Your task to perform on an android device: Open calendar and show me the third week of next month Image 0: 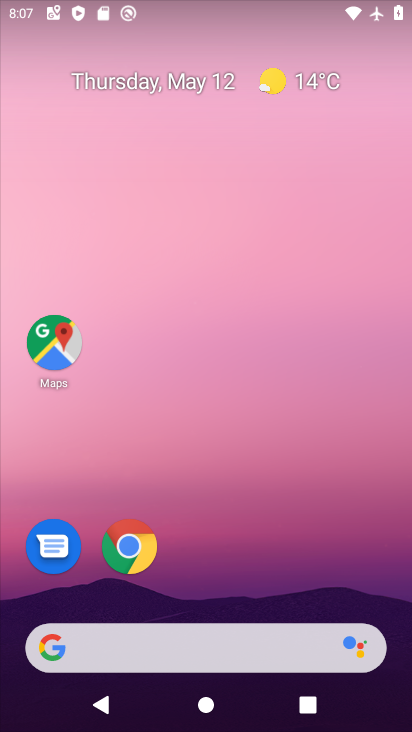
Step 0: drag from (172, 655) to (355, 163)
Your task to perform on an android device: Open calendar and show me the third week of next month Image 1: 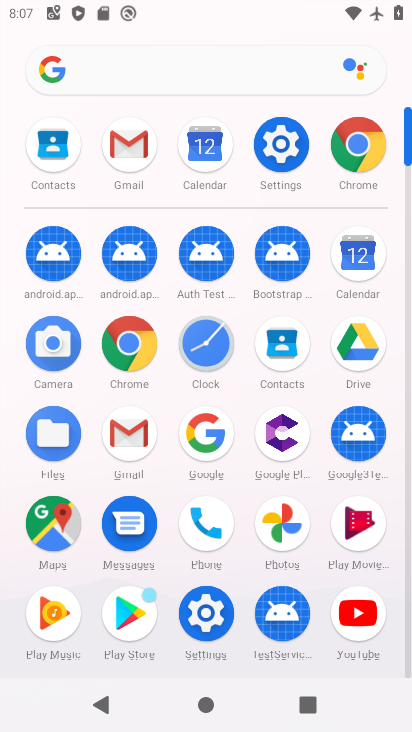
Step 1: click (364, 262)
Your task to perform on an android device: Open calendar and show me the third week of next month Image 2: 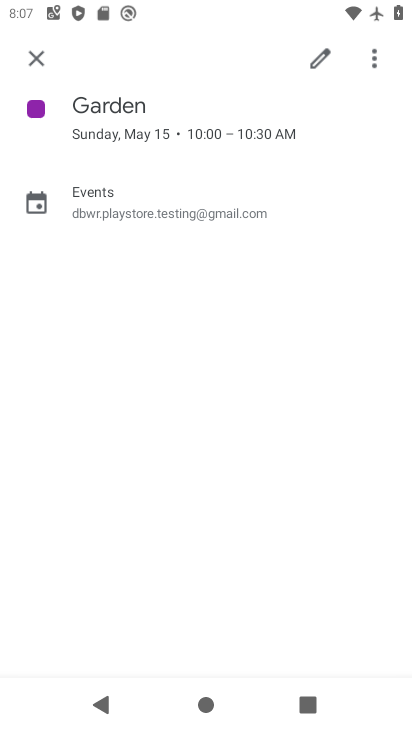
Step 2: click (39, 56)
Your task to perform on an android device: Open calendar and show me the third week of next month Image 3: 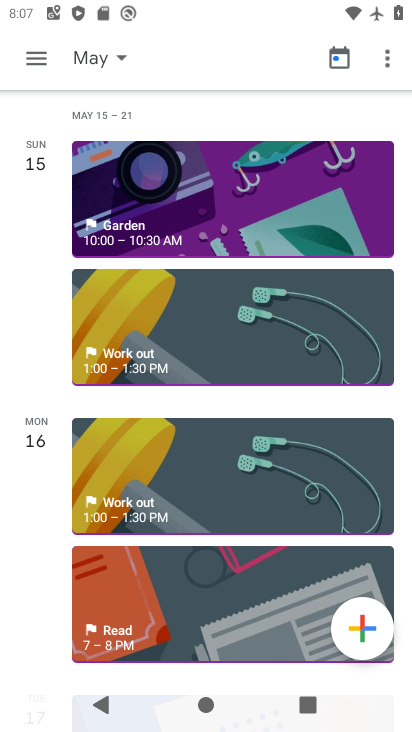
Step 3: click (107, 54)
Your task to perform on an android device: Open calendar and show me the third week of next month Image 4: 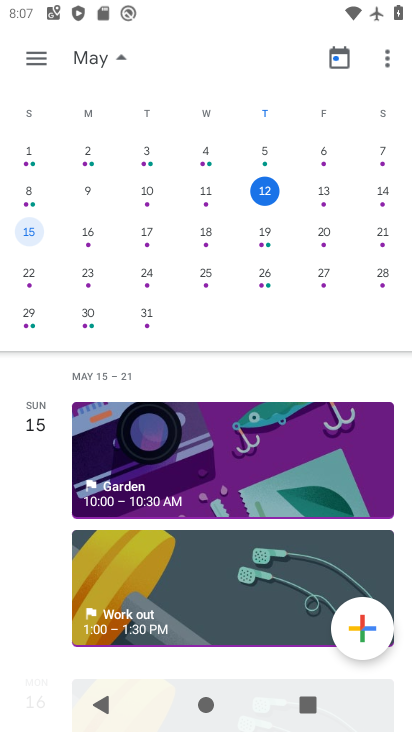
Step 4: drag from (350, 270) to (153, 154)
Your task to perform on an android device: Open calendar and show me the third week of next month Image 5: 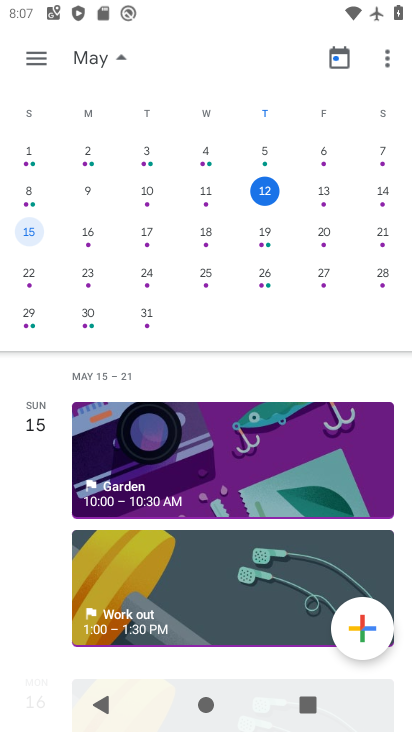
Step 5: drag from (357, 201) to (97, 97)
Your task to perform on an android device: Open calendar and show me the third week of next month Image 6: 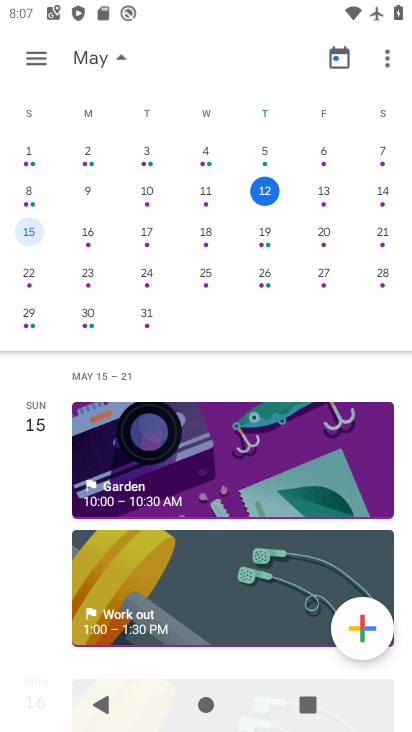
Step 6: drag from (328, 249) to (75, 160)
Your task to perform on an android device: Open calendar and show me the third week of next month Image 7: 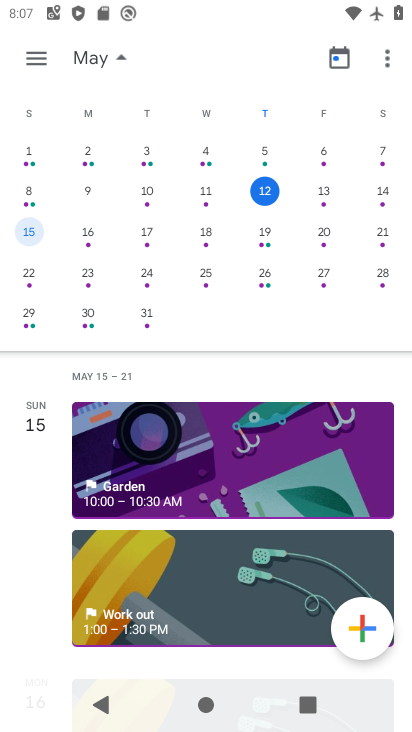
Step 7: drag from (229, 198) to (11, 385)
Your task to perform on an android device: Open calendar and show me the third week of next month Image 8: 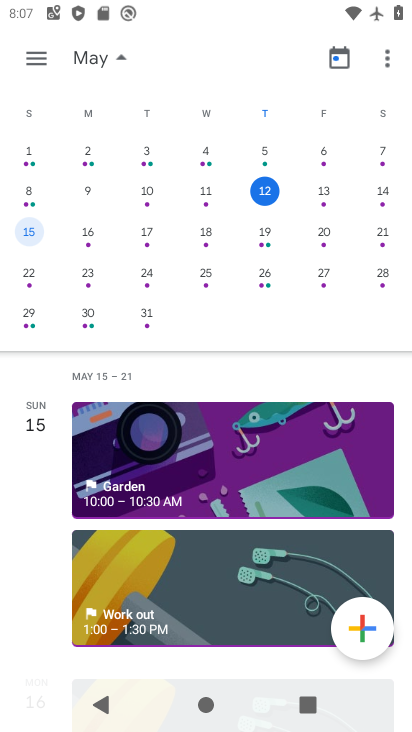
Step 8: drag from (282, 226) to (27, 152)
Your task to perform on an android device: Open calendar and show me the third week of next month Image 9: 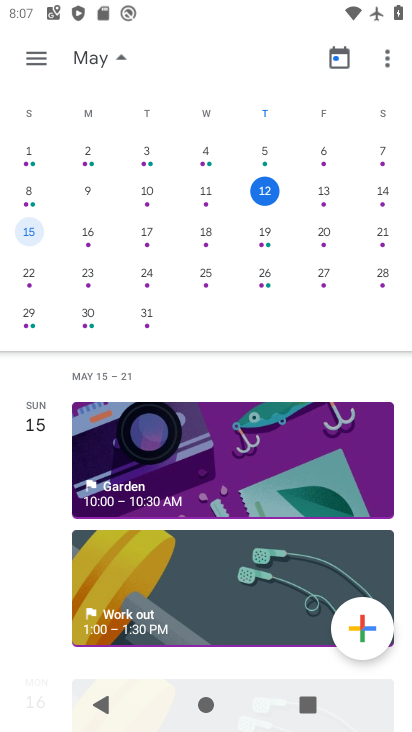
Step 9: click (336, 58)
Your task to perform on an android device: Open calendar and show me the third week of next month Image 10: 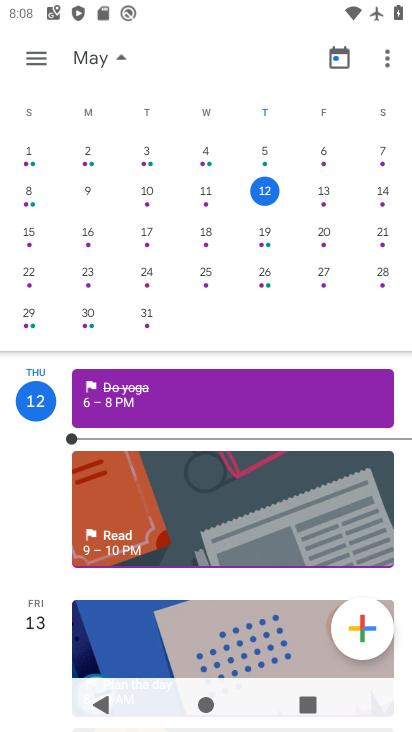
Step 10: click (124, 60)
Your task to perform on an android device: Open calendar and show me the third week of next month Image 11: 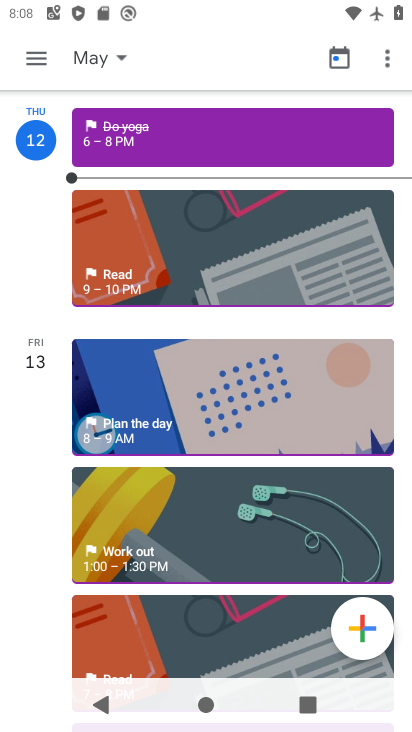
Step 11: click (105, 62)
Your task to perform on an android device: Open calendar and show me the third week of next month Image 12: 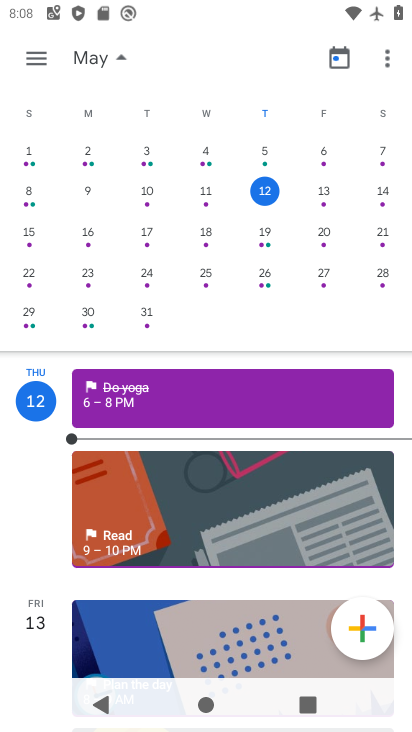
Step 12: drag from (354, 234) to (80, 167)
Your task to perform on an android device: Open calendar and show me the third week of next month Image 13: 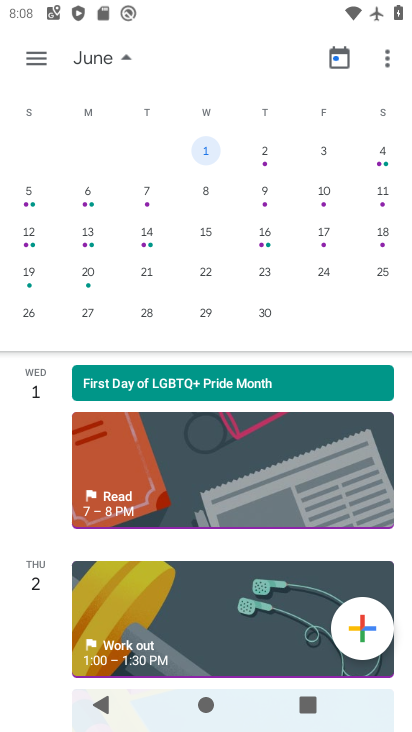
Step 13: click (34, 229)
Your task to perform on an android device: Open calendar and show me the third week of next month Image 14: 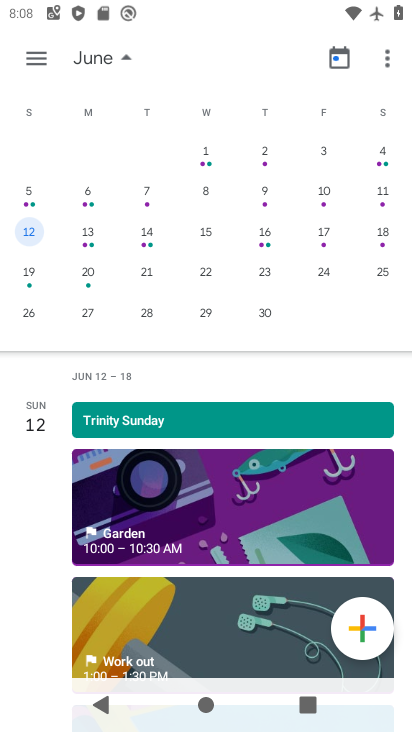
Step 14: click (41, 46)
Your task to perform on an android device: Open calendar and show me the third week of next month Image 15: 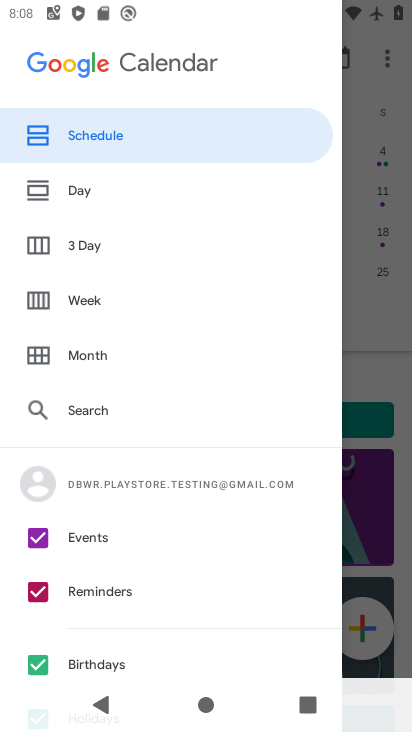
Step 15: click (89, 304)
Your task to perform on an android device: Open calendar and show me the third week of next month Image 16: 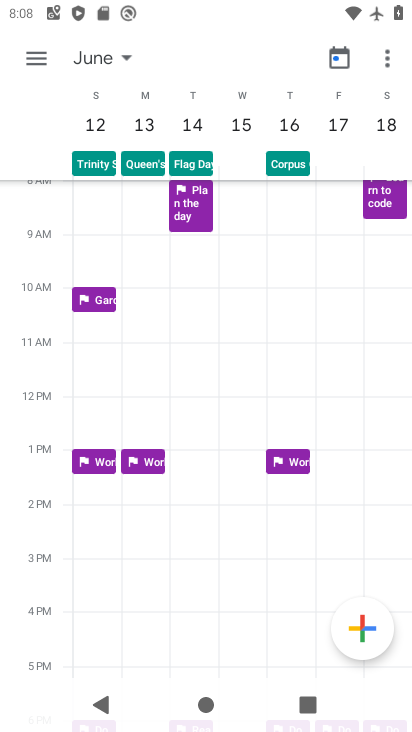
Step 16: task complete